Your task to perform on an android device: Open Chrome and go to settings Image 0: 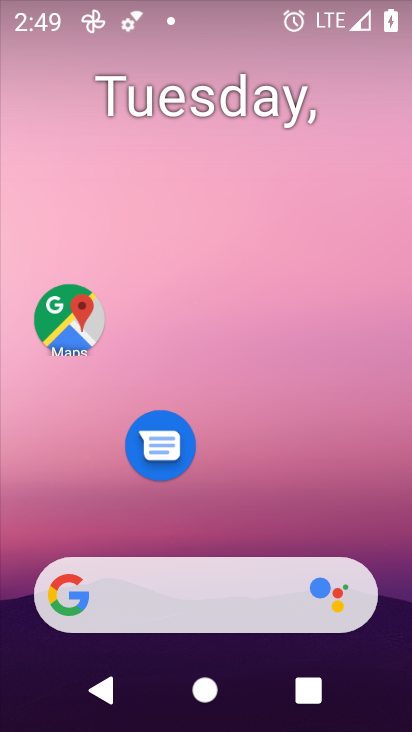
Step 0: click (270, 456)
Your task to perform on an android device: Open Chrome and go to settings Image 1: 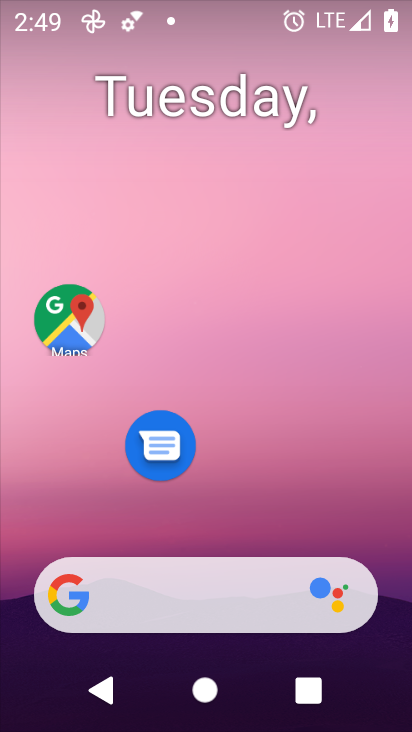
Step 1: drag from (270, 456) to (215, 79)
Your task to perform on an android device: Open Chrome and go to settings Image 2: 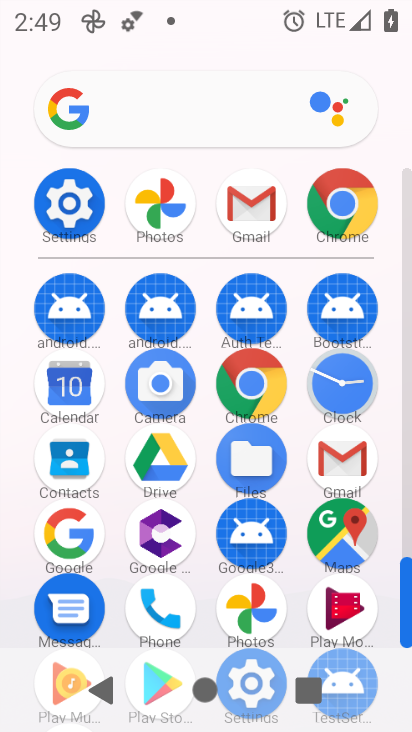
Step 2: click (340, 205)
Your task to perform on an android device: Open Chrome and go to settings Image 3: 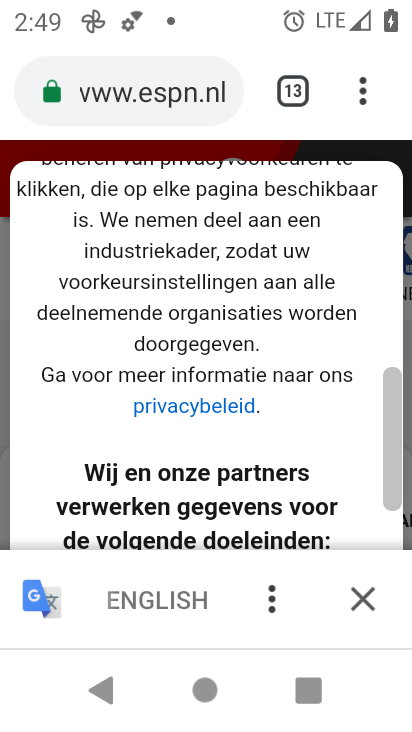
Step 3: click (361, 93)
Your task to perform on an android device: Open Chrome and go to settings Image 4: 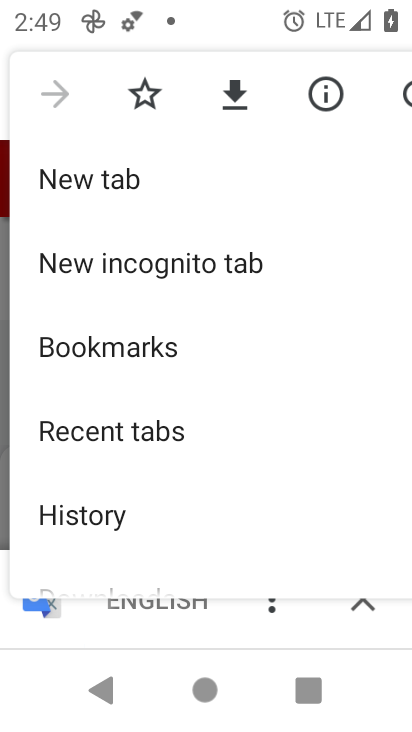
Step 4: drag from (230, 470) to (194, 176)
Your task to perform on an android device: Open Chrome and go to settings Image 5: 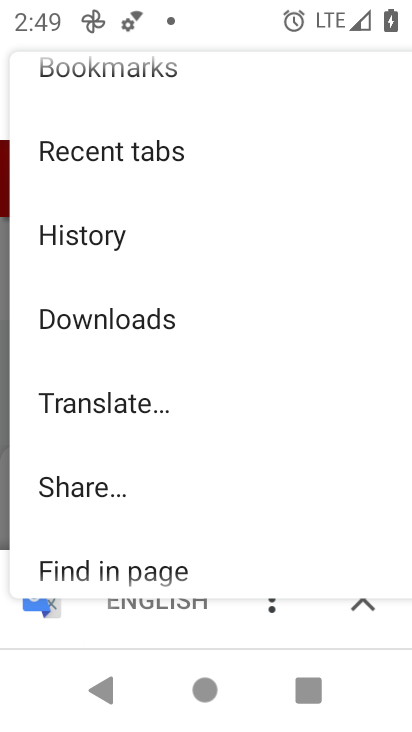
Step 5: drag from (310, 490) to (271, 113)
Your task to perform on an android device: Open Chrome and go to settings Image 6: 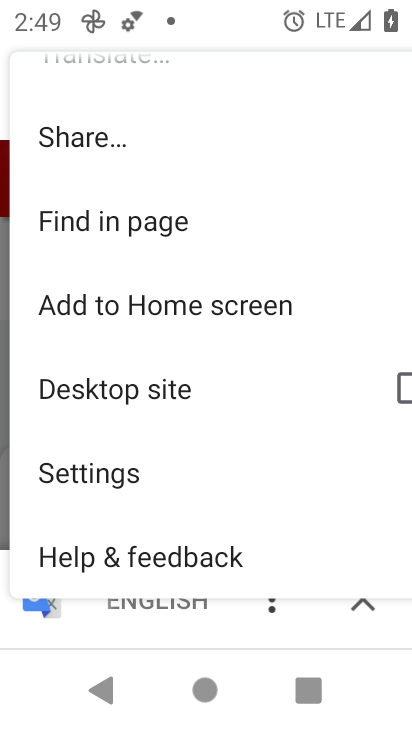
Step 6: click (119, 472)
Your task to perform on an android device: Open Chrome and go to settings Image 7: 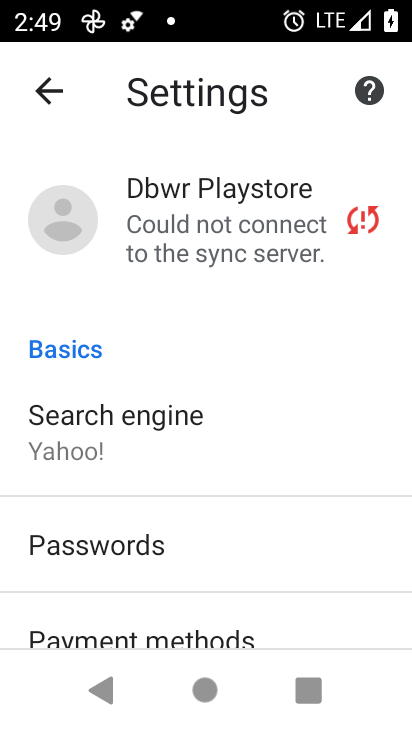
Step 7: task complete